Your task to perform on an android device: Open the Play Movies app and select the watchlist tab. Image 0: 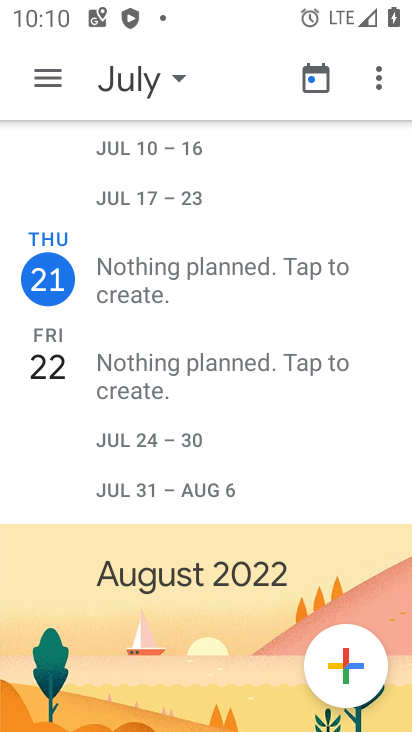
Step 0: press home button
Your task to perform on an android device: Open the Play Movies app and select the watchlist tab. Image 1: 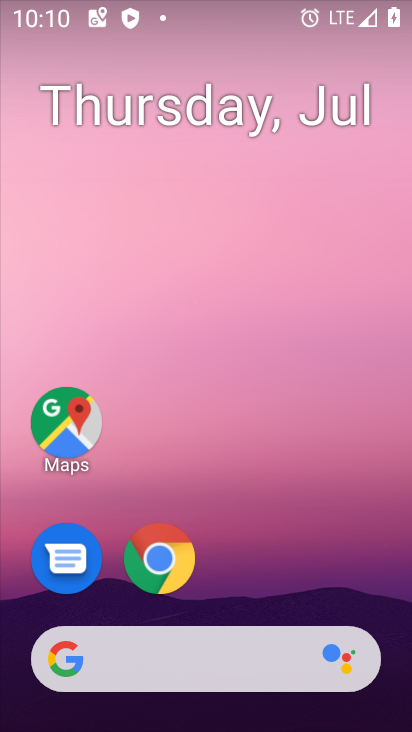
Step 1: drag from (359, 530) to (405, 5)
Your task to perform on an android device: Open the Play Movies app and select the watchlist tab. Image 2: 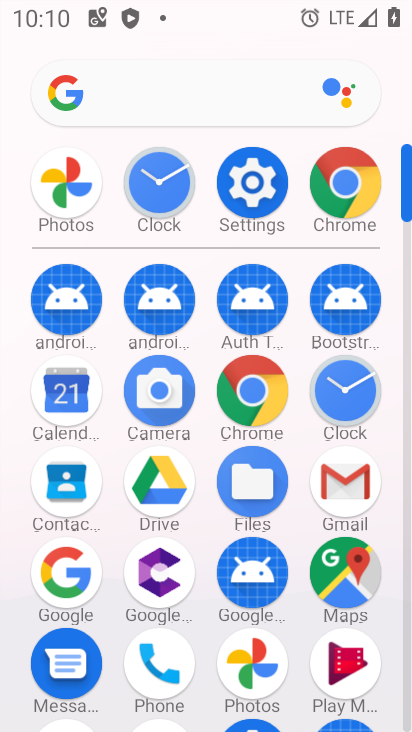
Step 2: click (352, 669)
Your task to perform on an android device: Open the Play Movies app and select the watchlist tab. Image 3: 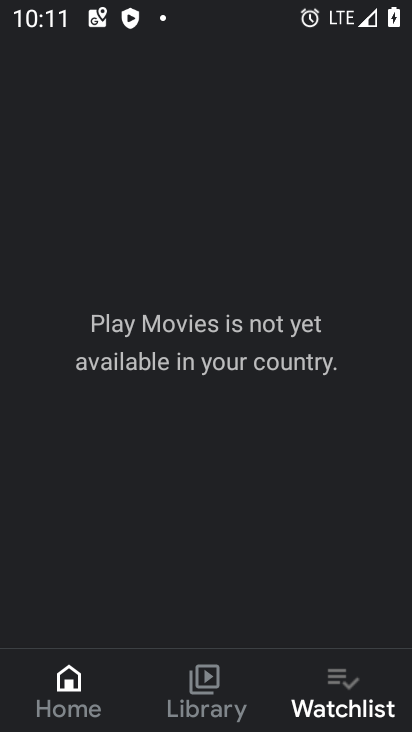
Step 3: task complete